Your task to perform on an android device: Clear the cart on target.com. Search for usb-a to usb-b on target.com, select the first entry, and add it to the cart. Image 0: 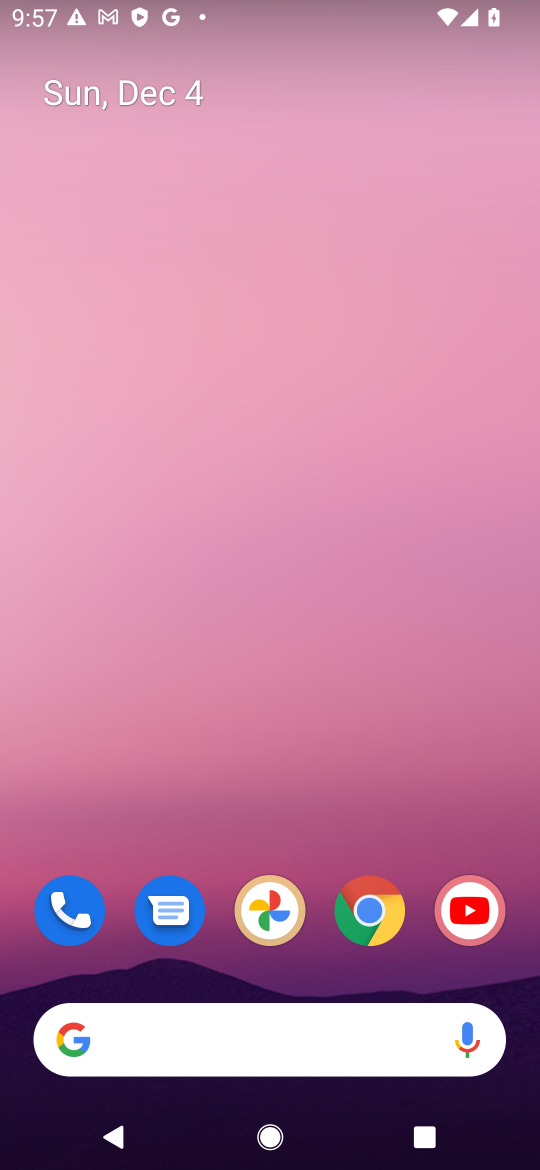
Step 0: drag from (360, 1122) to (420, 1)
Your task to perform on an android device: Clear the cart on target.com. Search for usb-a to usb-b on target.com, select the first entry, and add it to the cart. Image 1: 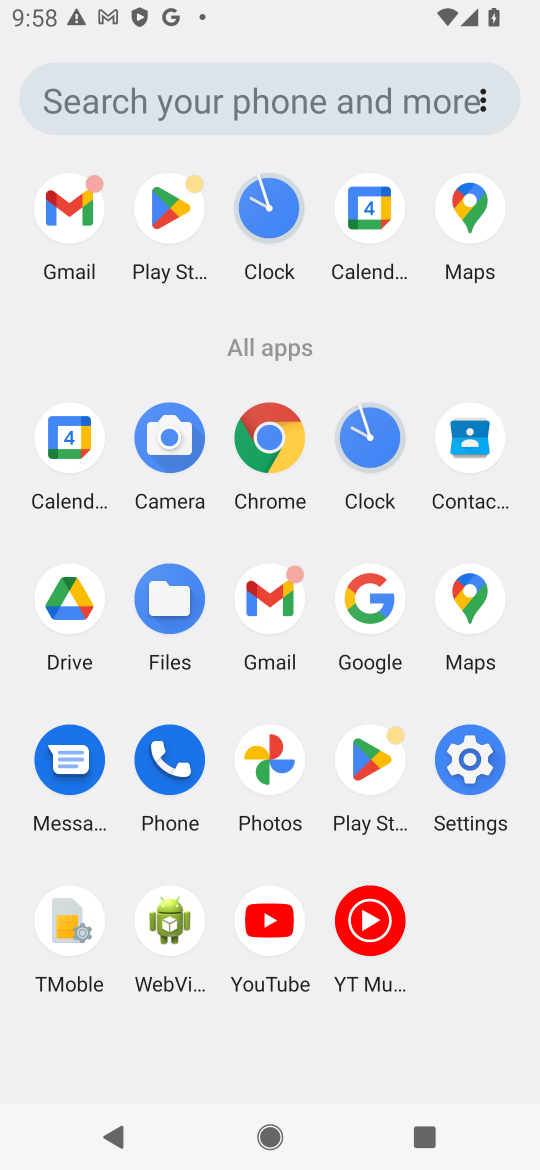
Step 1: click (270, 438)
Your task to perform on an android device: Clear the cart on target.com. Search for usb-a to usb-b on target.com, select the first entry, and add it to the cart. Image 2: 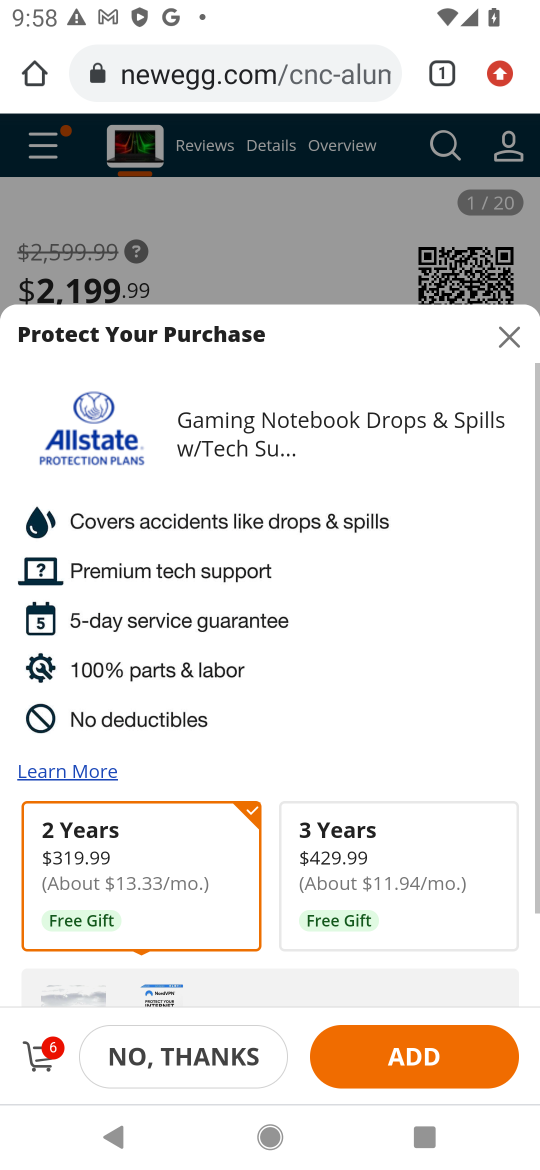
Step 2: click (278, 77)
Your task to perform on an android device: Clear the cart on target.com. Search for usb-a to usb-b on target.com, select the first entry, and add it to the cart. Image 3: 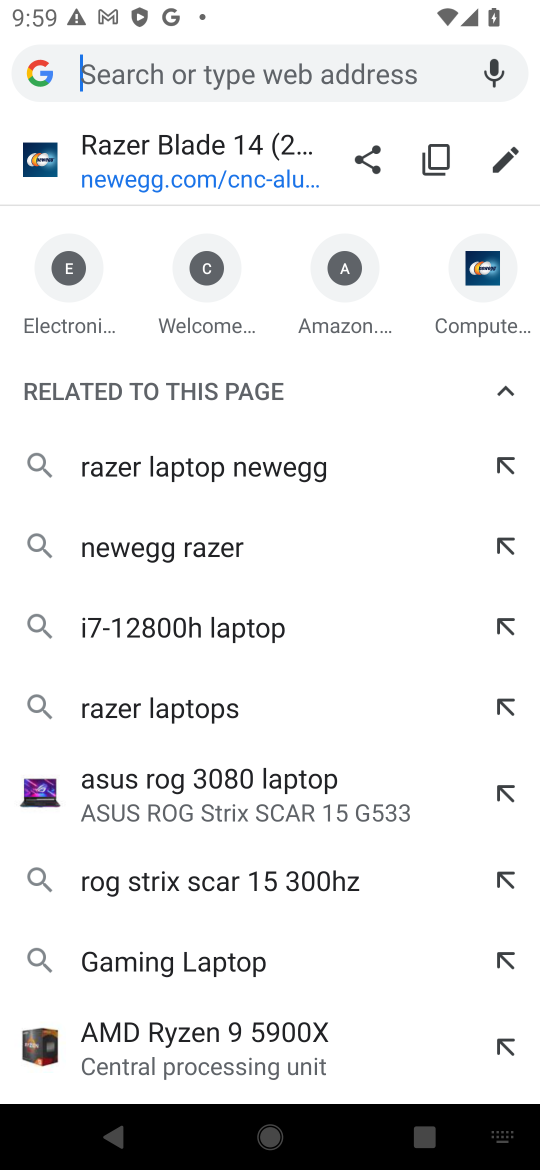
Step 3: type "target.com"
Your task to perform on an android device: Clear the cart on target.com. Search for usb-a to usb-b on target.com, select the first entry, and add it to the cart. Image 4: 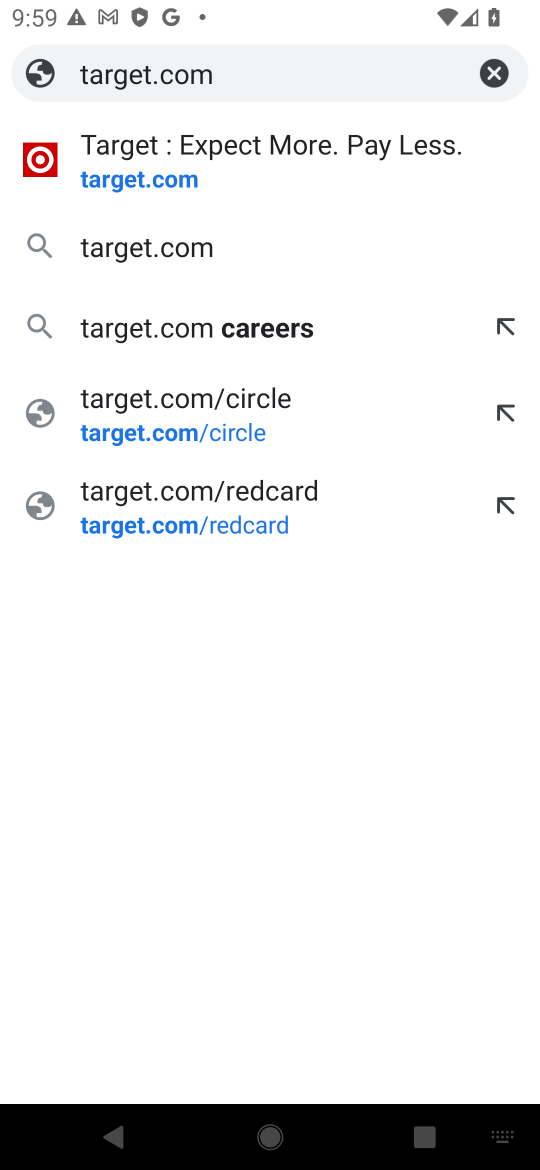
Step 4: click (100, 181)
Your task to perform on an android device: Clear the cart on target.com. Search for usb-a to usb-b on target.com, select the first entry, and add it to the cart. Image 5: 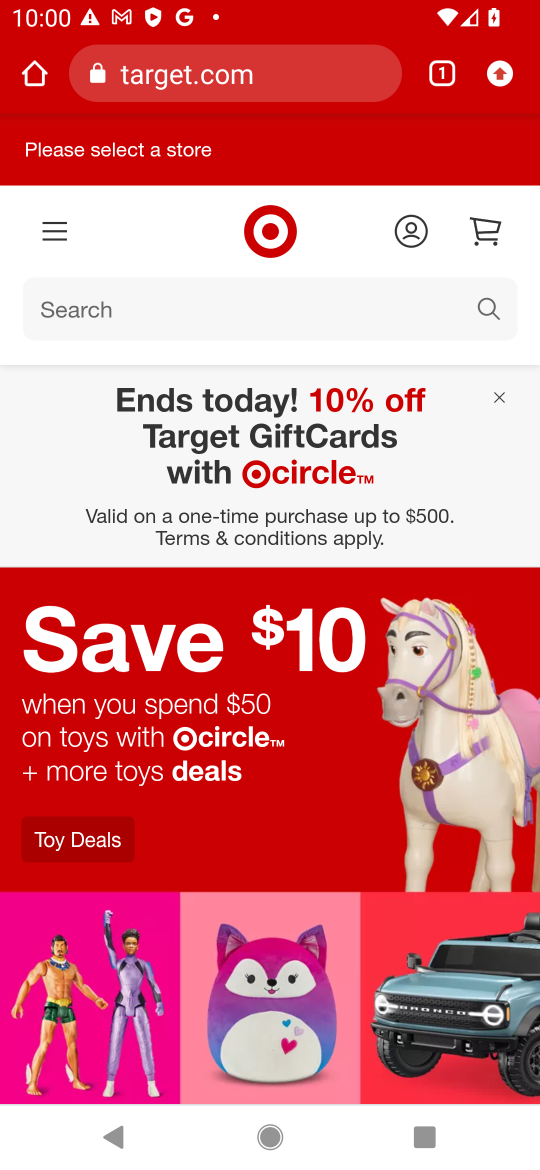
Step 5: type "usb-b "
Your task to perform on an android device: Clear the cart on target.com. Search for usb-a to usb-b on target.com, select the first entry, and add it to the cart. Image 6: 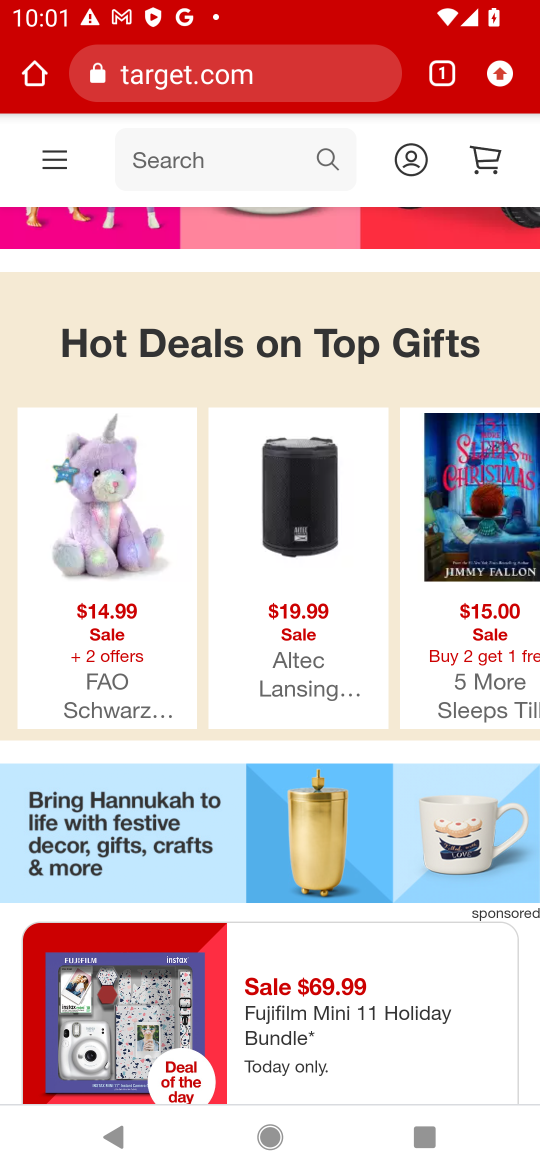
Step 6: drag from (207, 336) to (204, 971)
Your task to perform on an android device: Clear the cart on target.com. Search for usb-a to usb-b on target.com, select the first entry, and add it to the cart. Image 7: 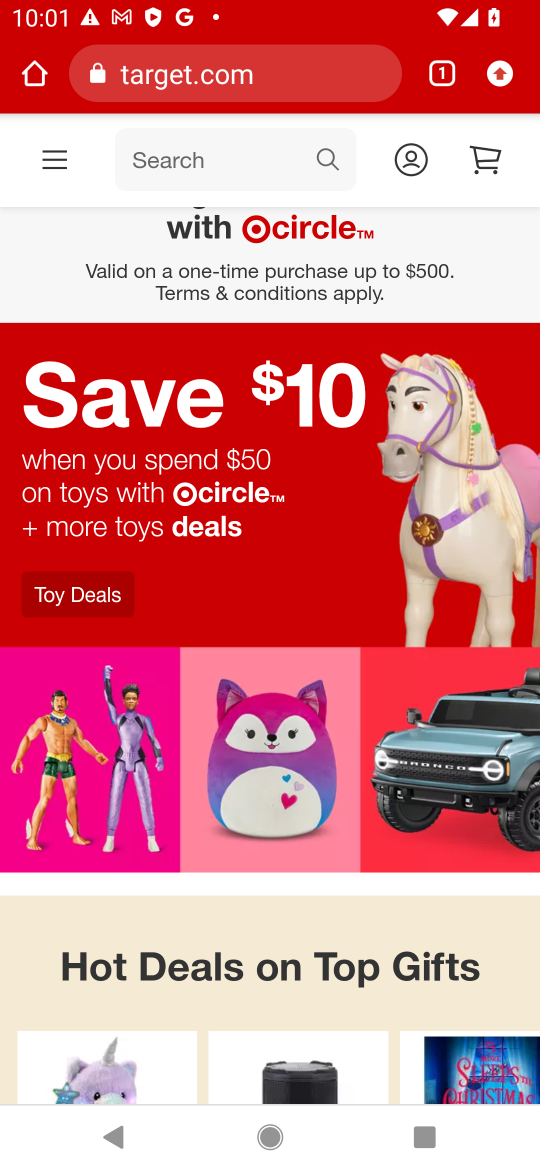
Step 7: click (209, 153)
Your task to perform on an android device: Clear the cart on target.com. Search for usb-a to usb-b on target.com, select the first entry, and add it to the cart. Image 8: 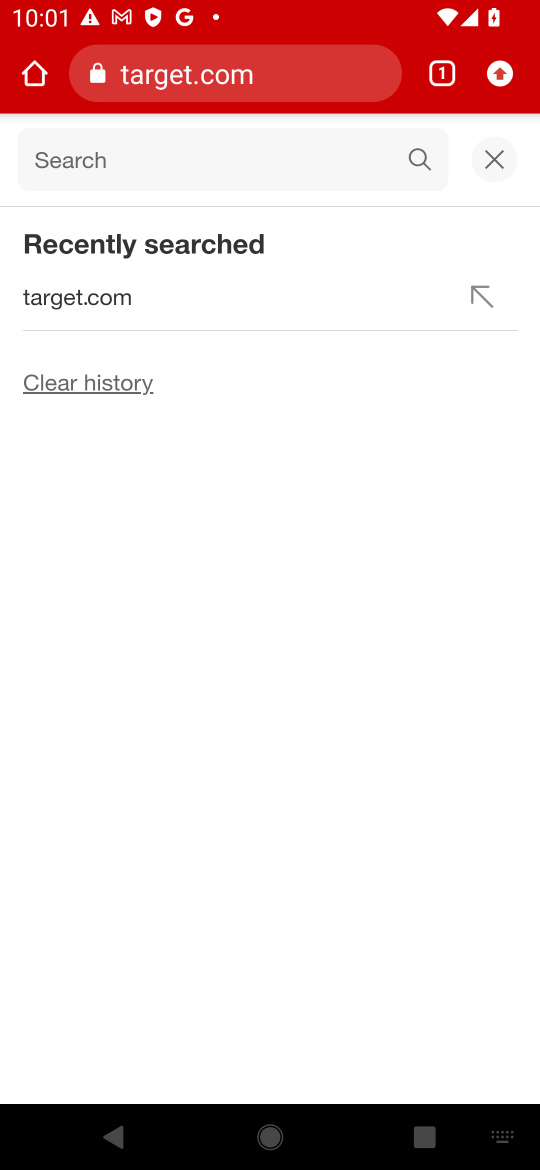
Step 8: type " usb-a to usb-b "
Your task to perform on an android device: Clear the cart on target.com. Search for usb-a to usb-b on target.com, select the first entry, and add it to the cart. Image 9: 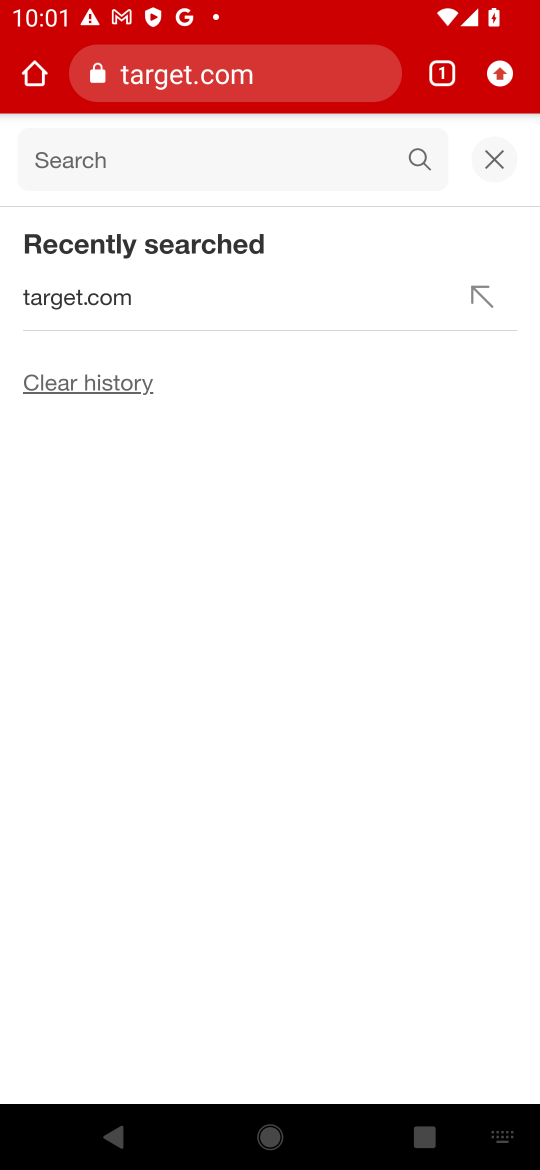
Step 9: type ""
Your task to perform on an android device: Clear the cart on target.com. Search for usb-a to usb-b on target.com, select the first entry, and add it to the cart. Image 10: 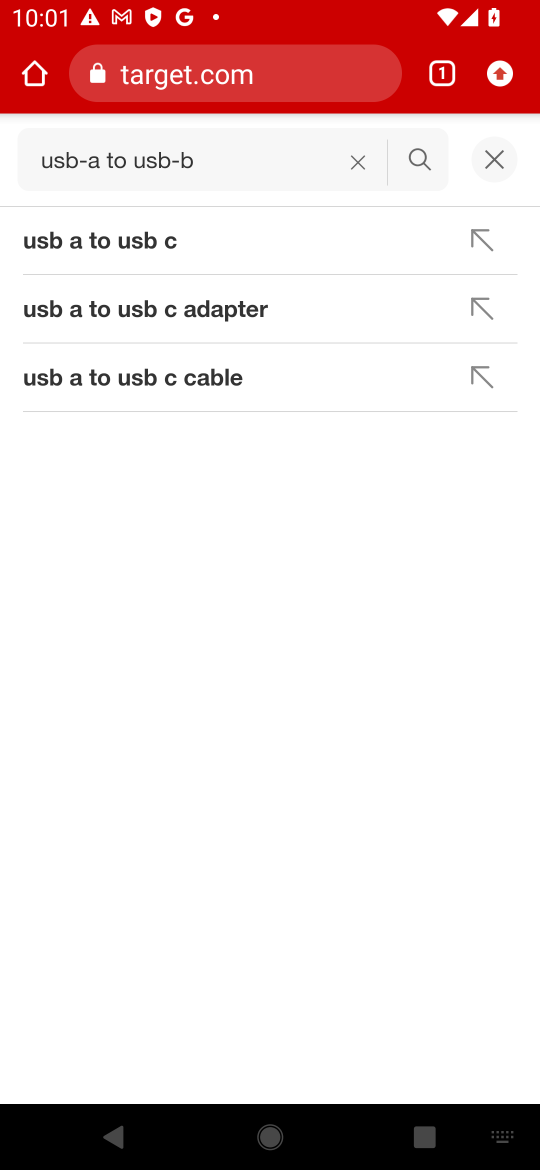
Step 10: click (85, 228)
Your task to perform on an android device: Clear the cart on target.com. Search for usb-a to usb-b on target.com, select the first entry, and add it to the cart. Image 11: 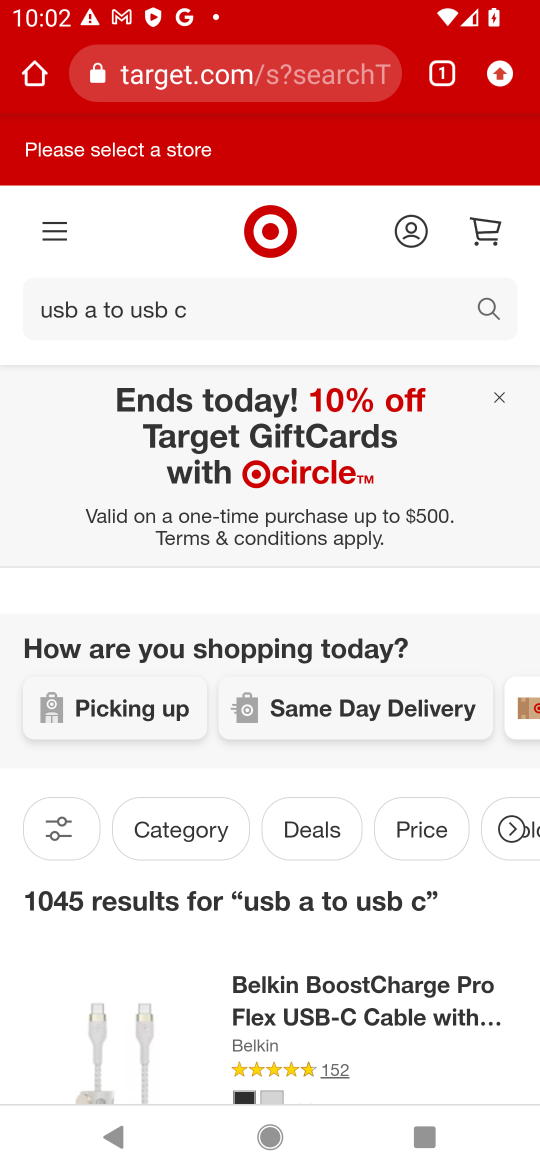
Step 11: click (170, 1003)
Your task to perform on an android device: Clear the cart on target.com. Search for usb-a to usb-b on target.com, select the first entry, and add it to the cart. Image 12: 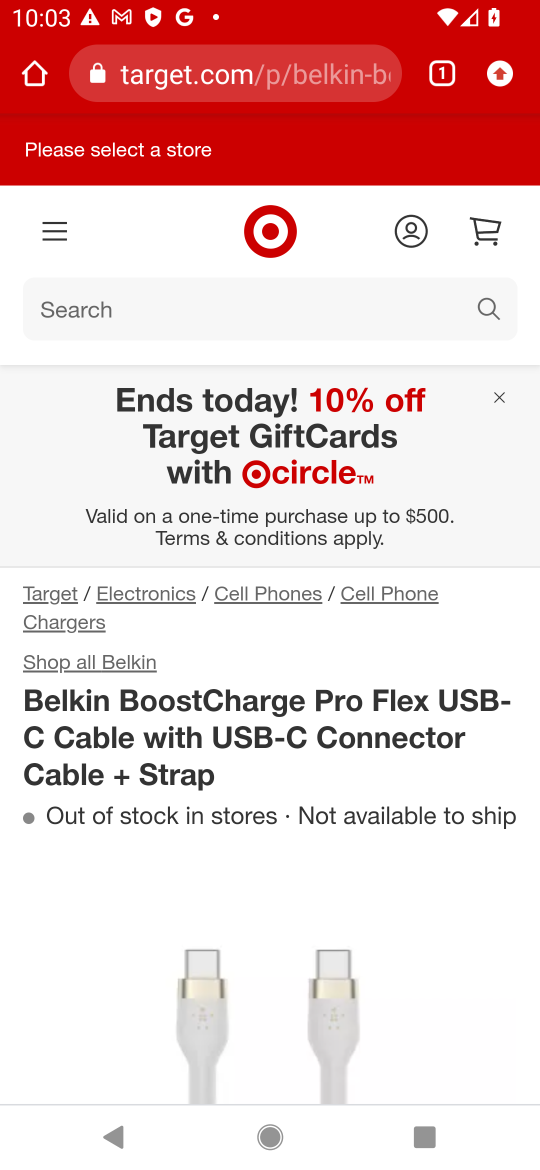
Step 12: drag from (206, 933) to (162, 309)
Your task to perform on an android device: Clear the cart on target.com. Search for usb-a to usb-b on target.com, select the first entry, and add it to the cart. Image 13: 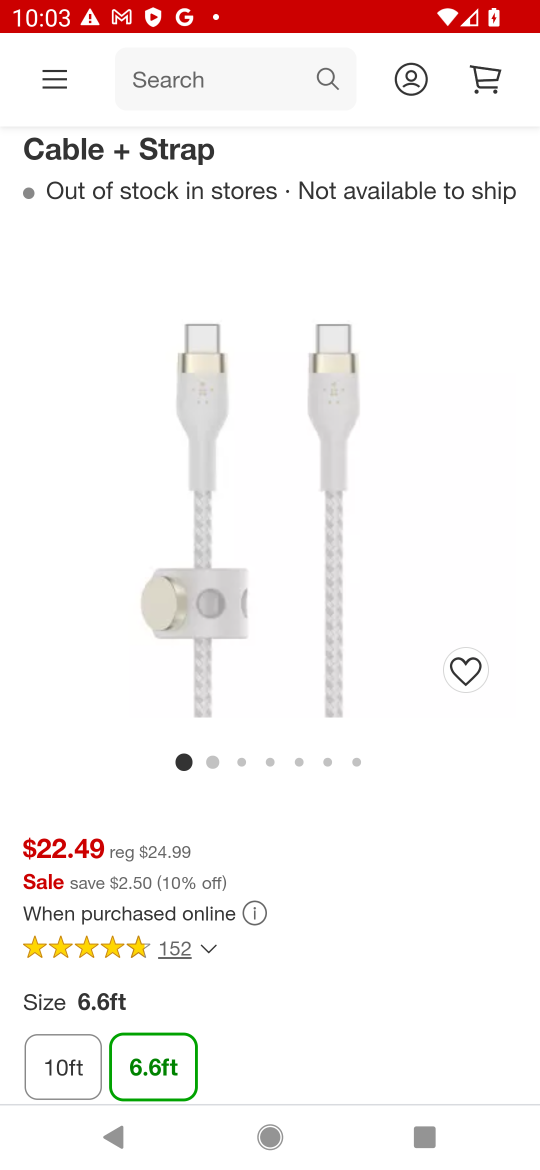
Step 13: drag from (314, 921) to (288, 249)
Your task to perform on an android device: Clear the cart on target.com. Search for usb-a to usb-b on target.com, select the first entry, and add it to the cart. Image 14: 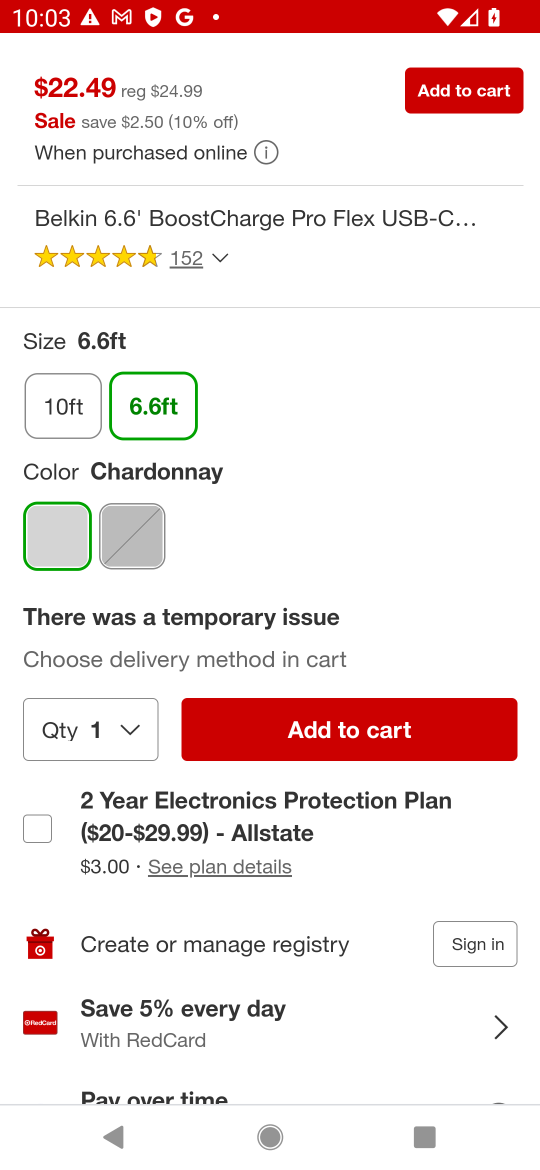
Step 14: click (374, 716)
Your task to perform on an android device: Clear the cart on target.com. Search for usb-a to usb-b on target.com, select the first entry, and add it to the cart. Image 15: 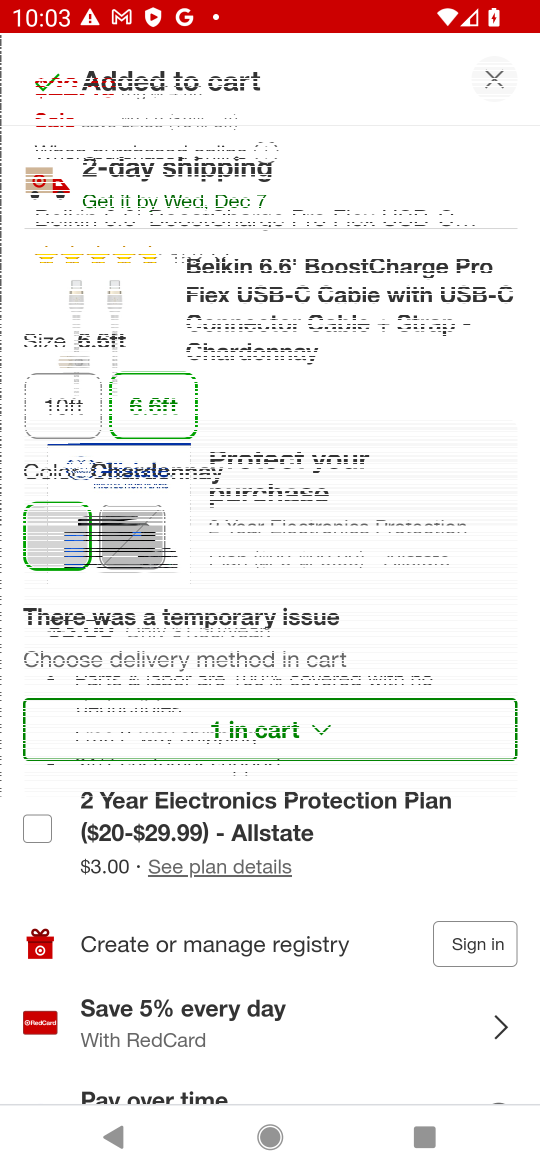
Step 15: task complete